Your task to perform on an android device: toggle pop-ups in chrome Image 0: 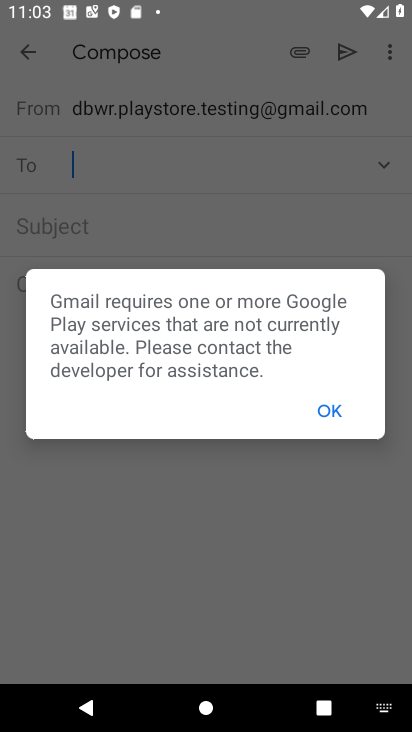
Step 0: click (322, 406)
Your task to perform on an android device: toggle pop-ups in chrome Image 1: 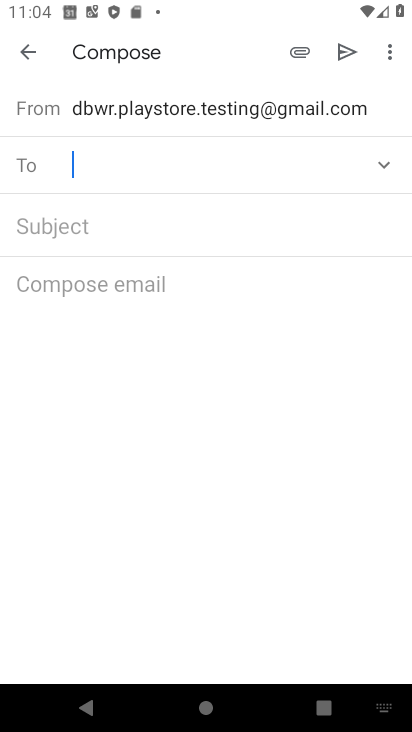
Step 1: press home button
Your task to perform on an android device: toggle pop-ups in chrome Image 2: 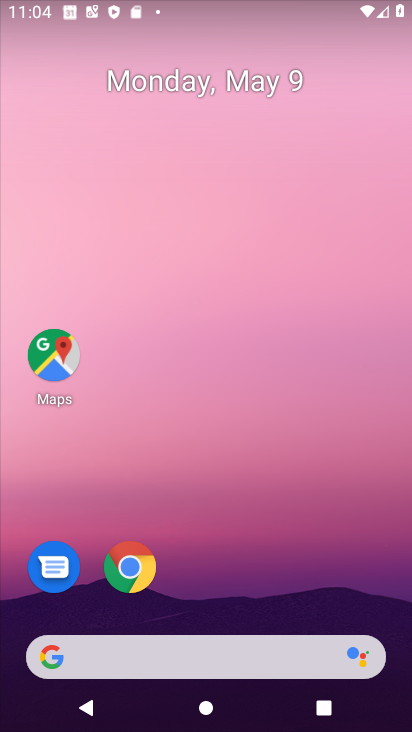
Step 2: click (147, 579)
Your task to perform on an android device: toggle pop-ups in chrome Image 3: 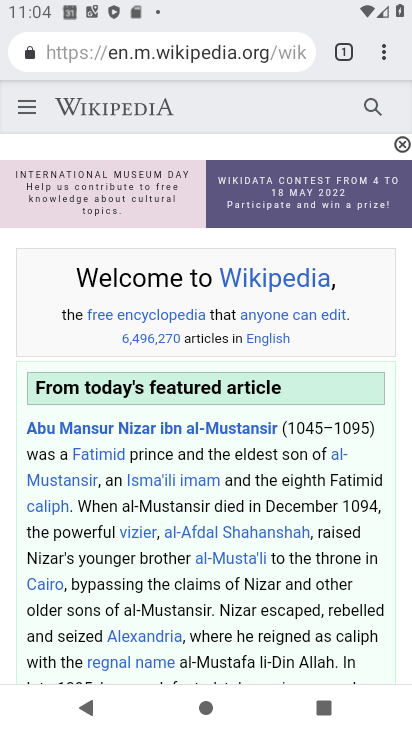
Step 3: drag from (381, 45) to (240, 601)
Your task to perform on an android device: toggle pop-ups in chrome Image 4: 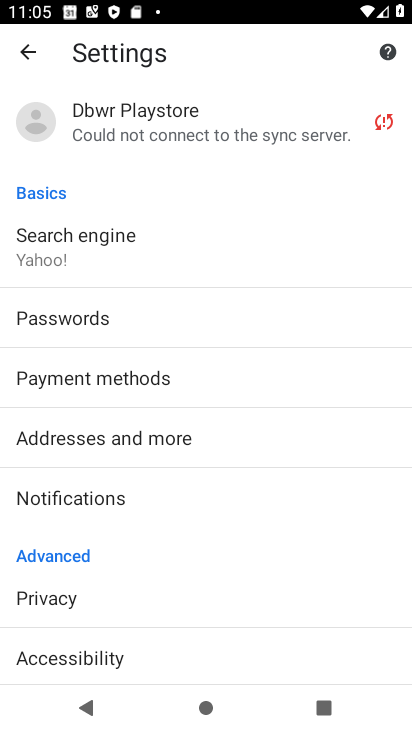
Step 4: drag from (139, 555) to (19, 34)
Your task to perform on an android device: toggle pop-ups in chrome Image 5: 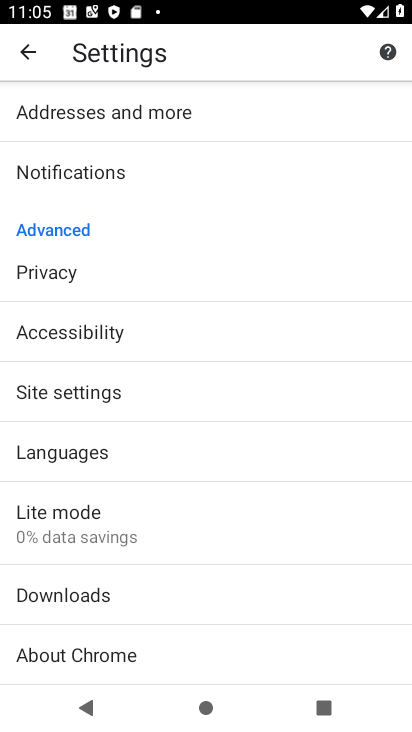
Step 5: click (89, 387)
Your task to perform on an android device: toggle pop-ups in chrome Image 6: 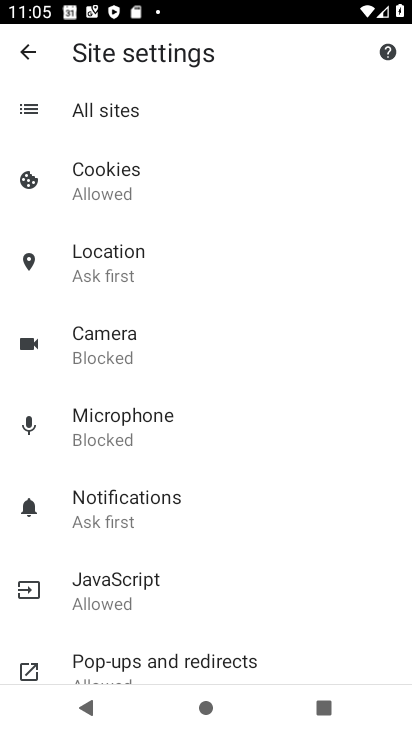
Step 6: click (141, 669)
Your task to perform on an android device: toggle pop-ups in chrome Image 7: 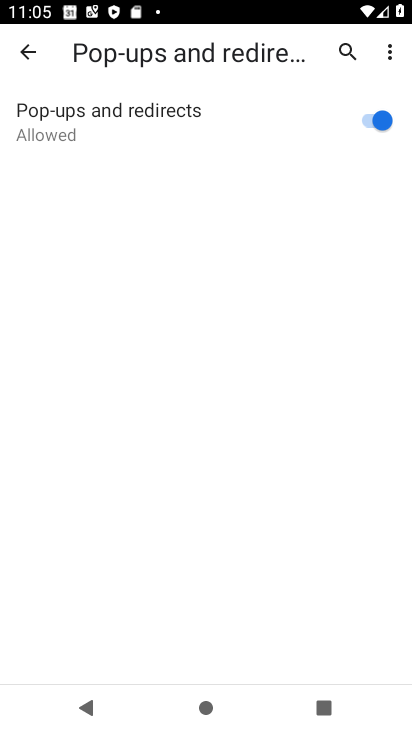
Step 7: click (375, 116)
Your task to perform on an android device: toggle pop-ups in chrome Image 8: 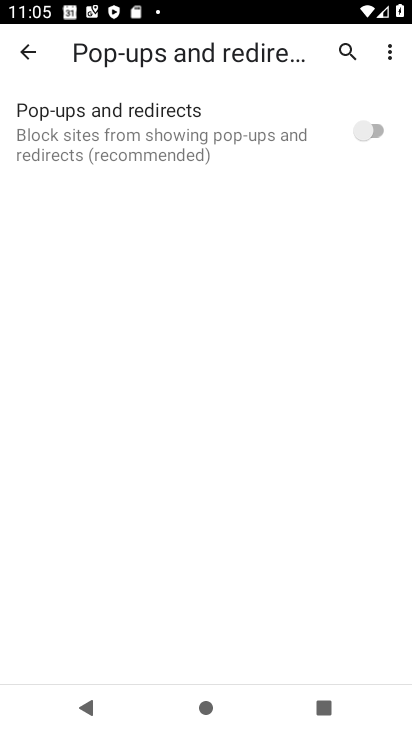
Step 8: task complete